Your task to perform on an android device: Go to accessibility settings Image 0: 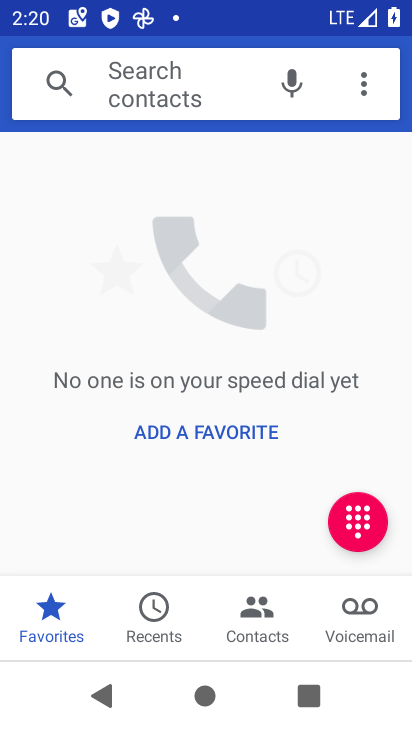
Step 0: drag from (239, 540) to (246, 231)
Your task to perform on an android device: Go to accessibility settings Image 1: 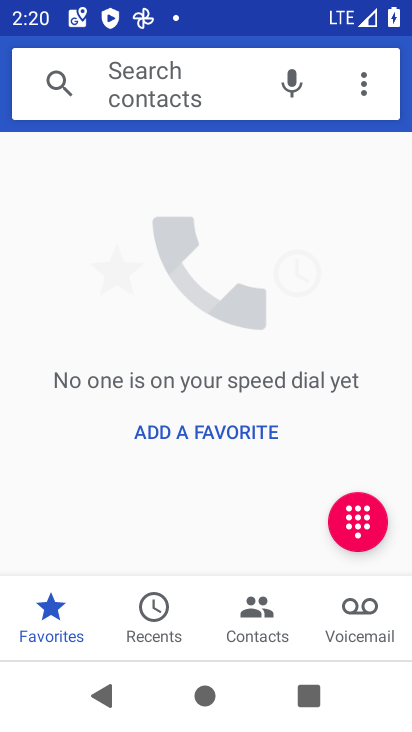
Step 1: press home button
Your task to perform on an android device: Go to accessibility settings Image 2: 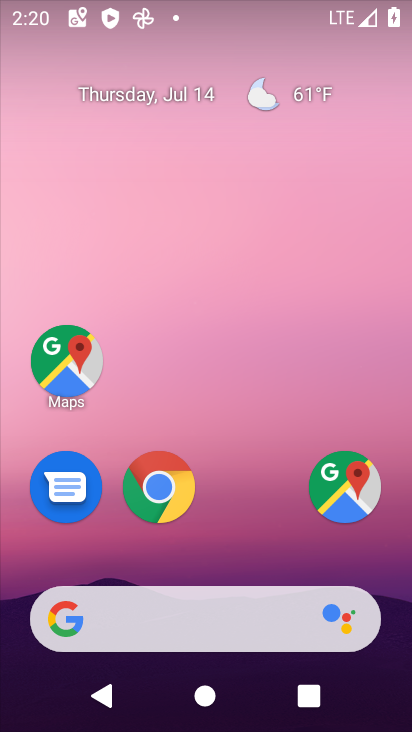
Step 2: drag from (253, 548) to (282, 167)
Your task to perform on an android device: Go to accessibility settings Image 3: 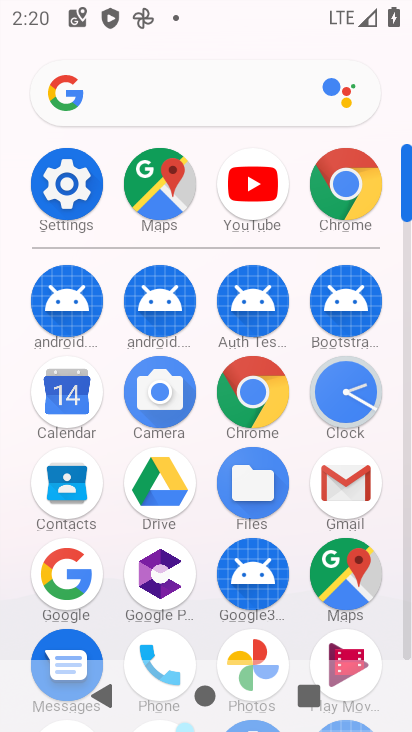
Step 3: click (56, 199)
Your task to perform on an android device: Go to accessibility settings Image 4: 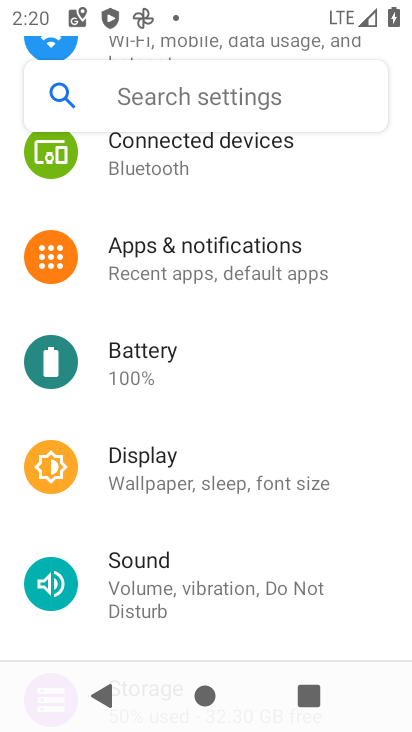
Step 4: drag from (359, 403) to (361, 315)
Your task to perform on an android device: Go to accessibility settings Image 5: 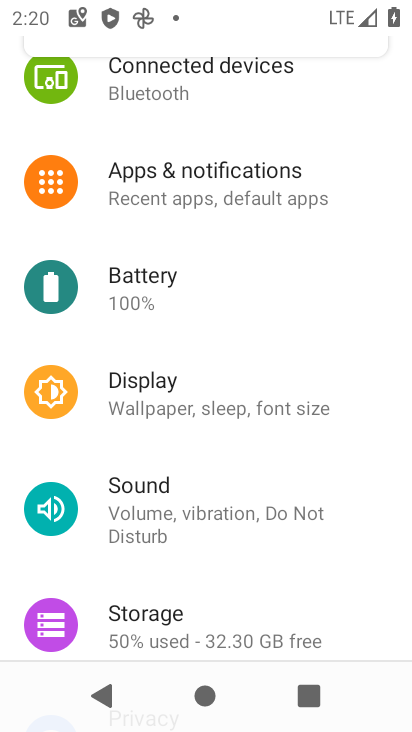
Step 5: drag from (364, 453) to (366, 400)
Your task to perform on an android device: Go to accessibility settings Image 6: 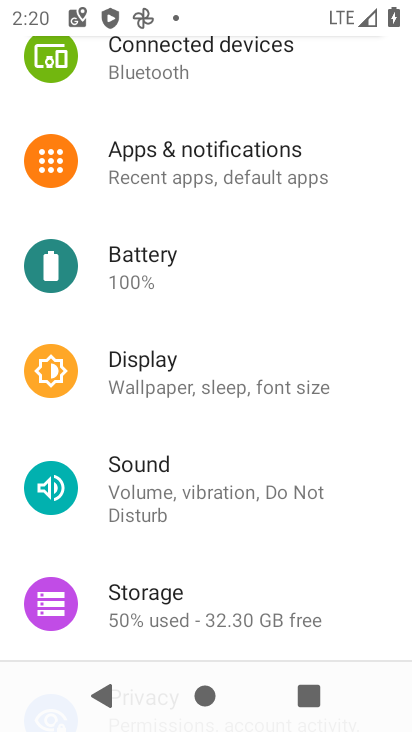
Step 6: drag from (357, 495) to (364, 321)
Your task to perform on an android device: Go to accessibility settings Image 7: 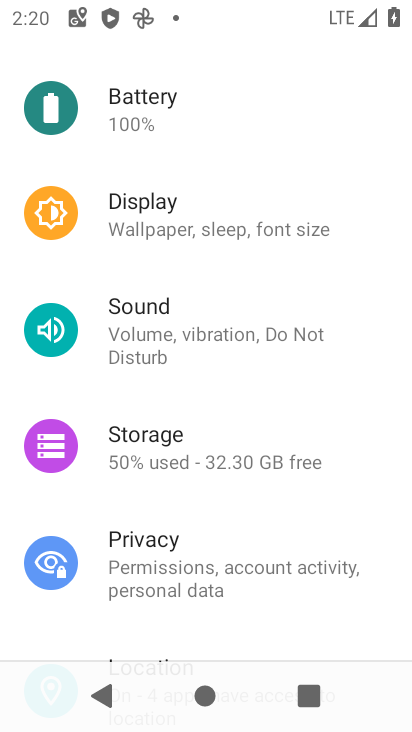
Step 7: drag from (374, 447) to (370, 338)
Your task to perform on an android device: Go to accessibility settings Image 8: 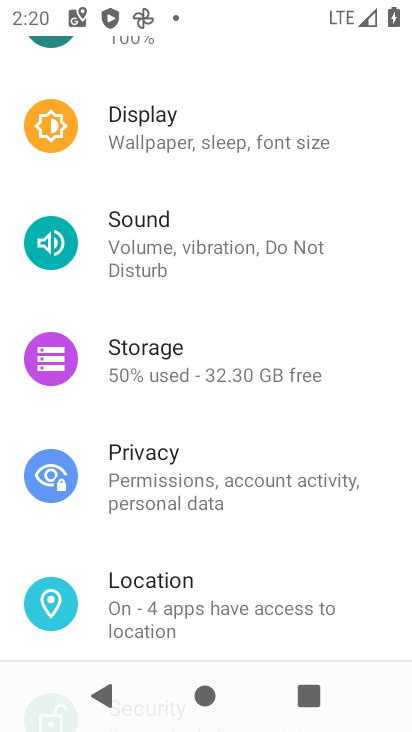
Step 8: drag from (374, 532) to (370, 419)
Your task to perform on an android device: Go to accessibility settings Image 9: 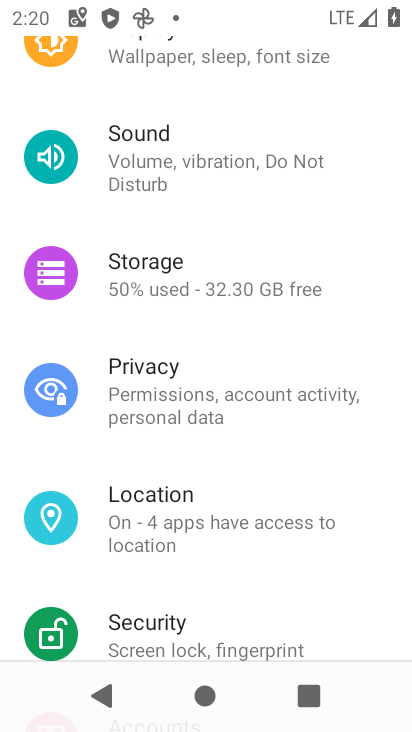
Step 9: drag from (365, 514) to (359, 368)
Your task to perform on an android device: Go to accessibility settings Image 10: 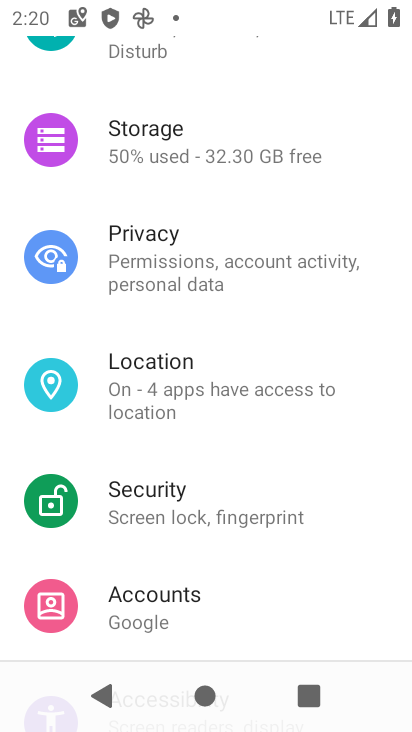
Step 10: drag from (348, 495) to (349, 340)
Your task to perform on an android device: Go to accessibility settings Image 11: 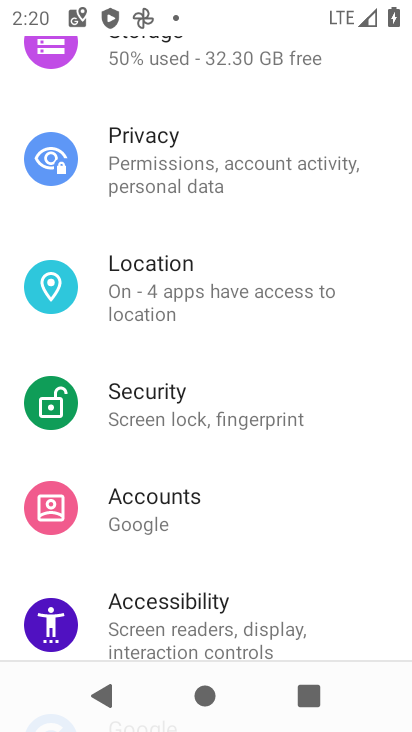
Step 11: drag from (339, 517) to (352, 349)
Your task to perform on an android device: Go to accessibility settings Image 12: 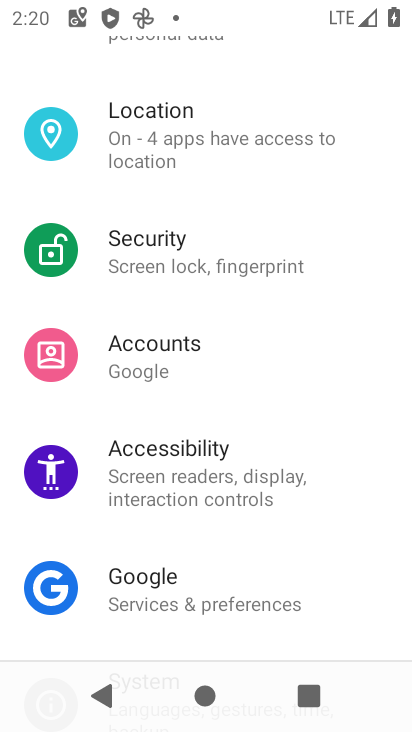
Step 12: click (306, 497)
Your task to perform on an android device: Go to accessibility settings Image 13: 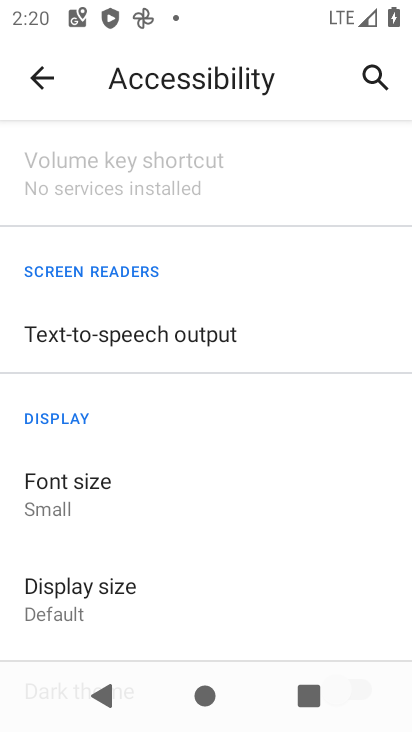
Step 13: task complete